Your task to perform on an android device: What's the weather today? Image 0: 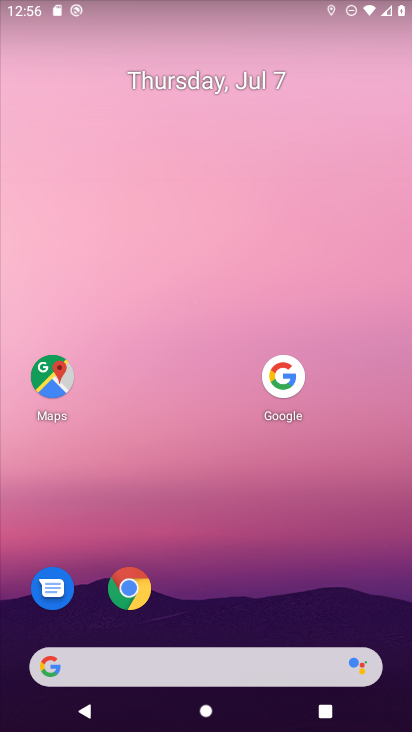
Step 0: click (205, 670)
Your task to perform on an android device: What's the weather today? Image 1: 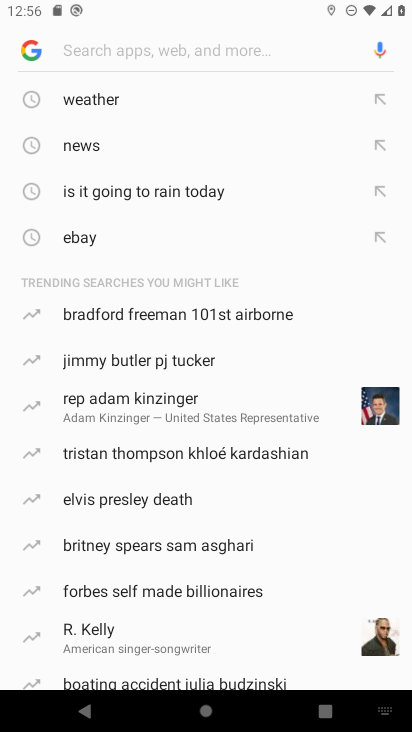
Step 1: click (109, 104)
Your task to perform on an android device: What's the weather today? Image 2: 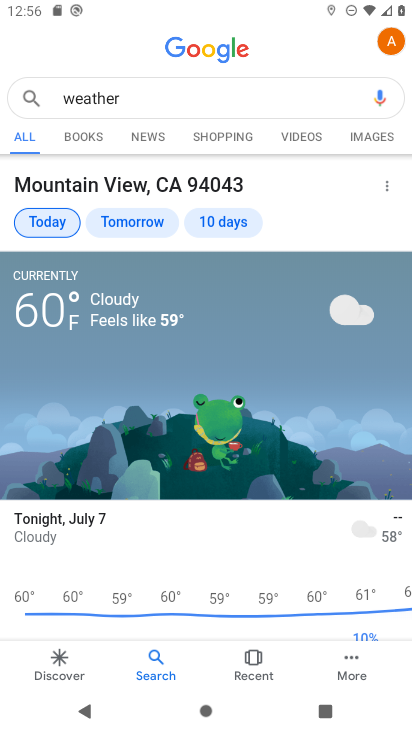
Step 2: task complete